Your task to perform on an android device: turn off smart reply in the gmail app Image 0: 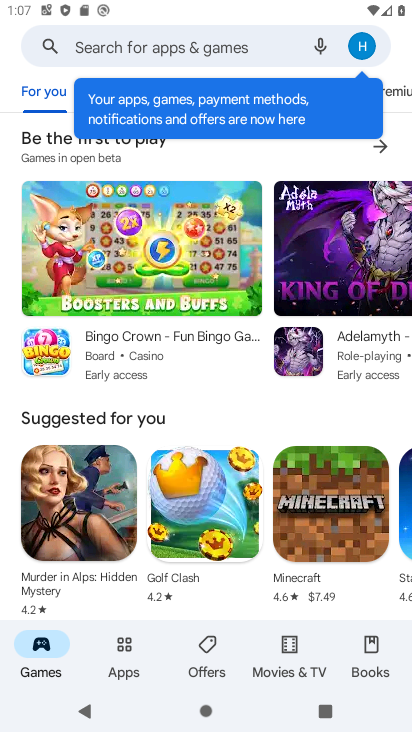
Step 0: press home button
Your task to perform on an android device: turn off smart reply in the gmail app Image 1: 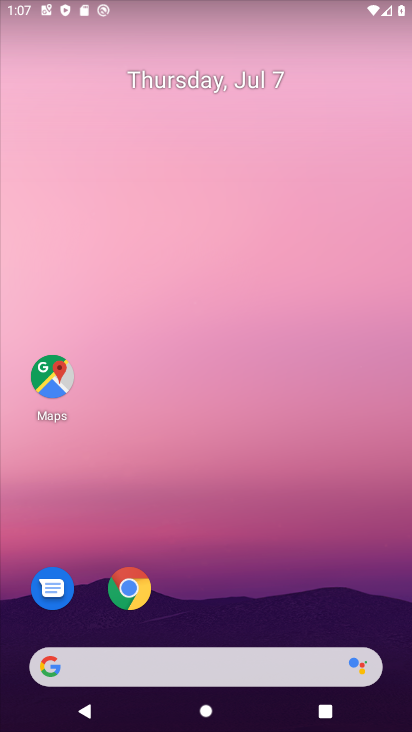
Step 1: drag from (204, 574) to (209, 207)
Your task to perform on an android device: turn off smart reply in the gmail app Image 2: 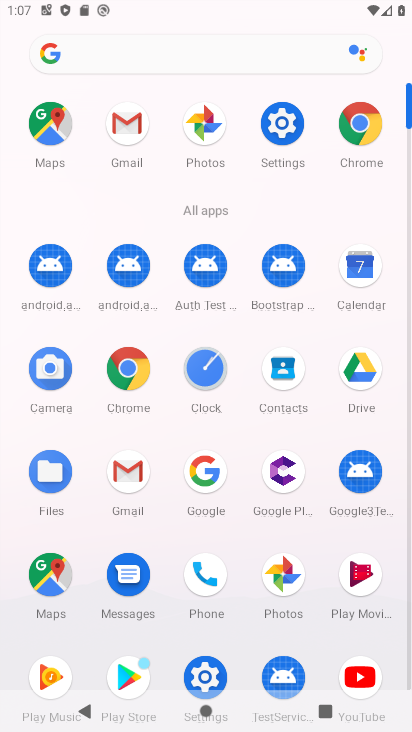
Step 2: click (137, 125)
Your task to perform on an android device: turn off smart reply in the gmail app Image 3: 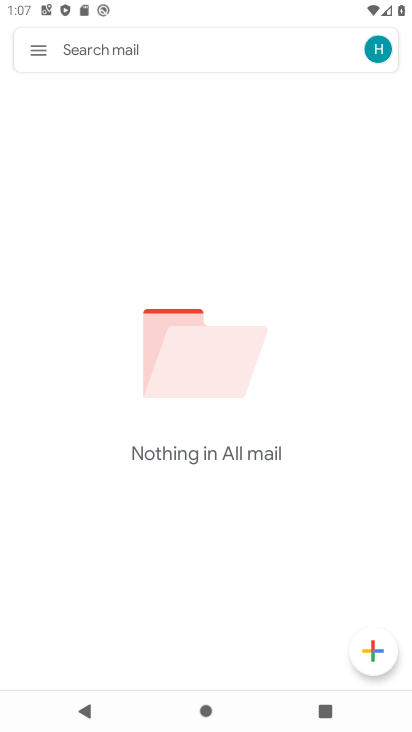
Step 3: click (29, 54)
Your task to perform on an android device: turn off smart reply in the gmail app Image 4: 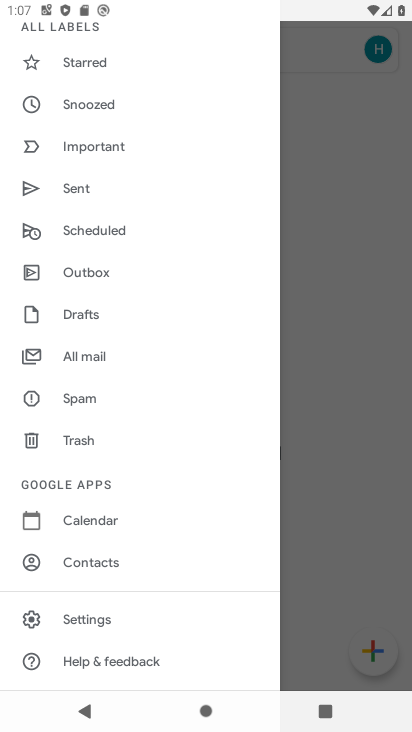
Step 4: click (77, 612)
Your task to perform on an android device: turn off smart reply in the gmail app Image 5: 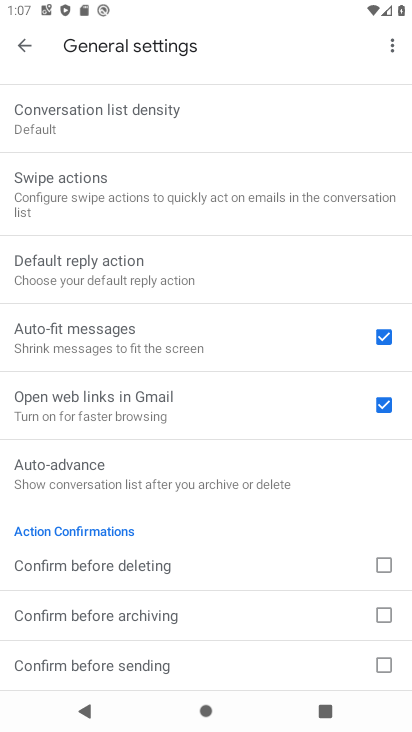
Step 5: drag from (183, 538) to (218, 460)
Your task to perform on an android device: turn off smart reply in the gmail app Image 6: 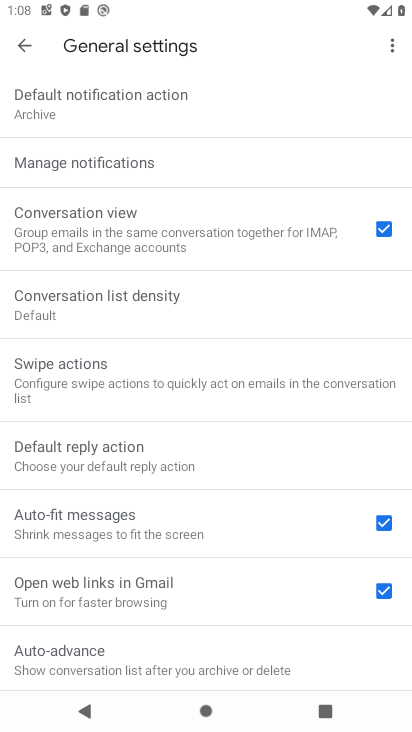
Step 6: drag from (96, 284) to (109, 612)
Your task to perform on an android device: turn off smart reply in the gmail app Image 7: 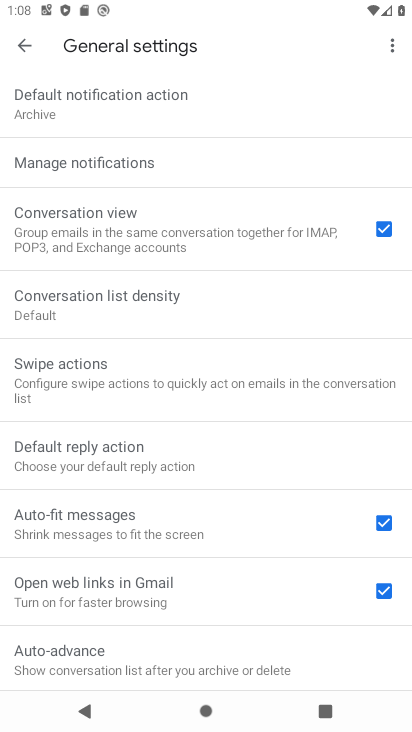
Step 7: click (12, 30)
Your task to perform on an android device: turn off smart reply in the gmail app Image 8: 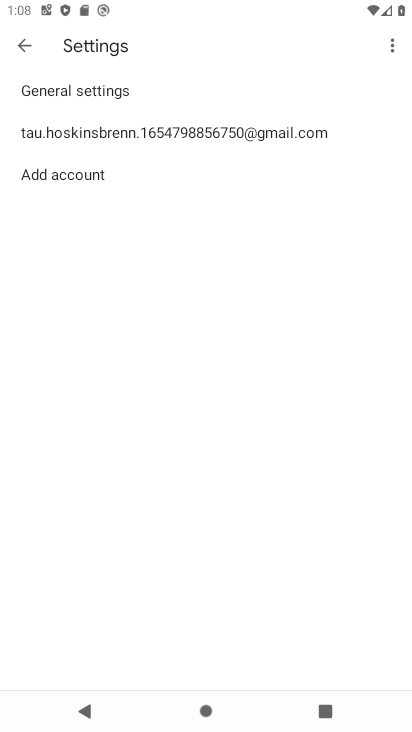
Step 8: click (103, 131)
Your task to perform on an android device: turn off smart reply in the gmail app Image 9: 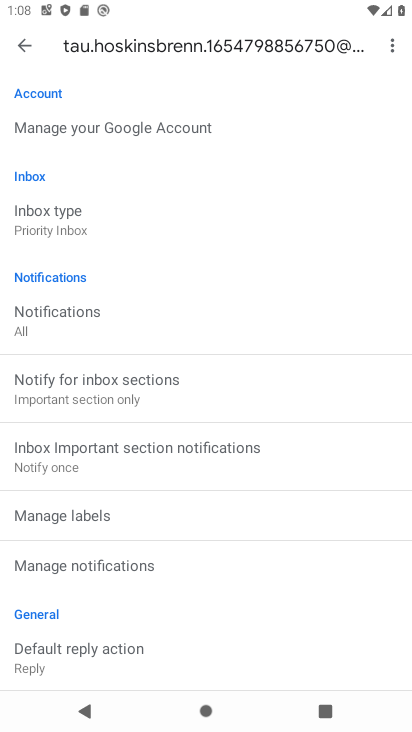
Step 9: drag from (115, 599) to (186, 246)
Your task to perform on an android device: turn off smart reply in the gmail app Image 10: 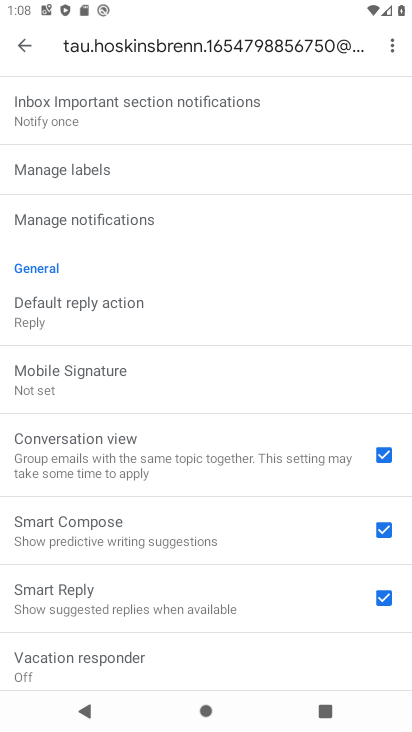
Step 10: click (374, 599)
Your task to perform on an android device: turn off smart reply in the gmail app Image 11: 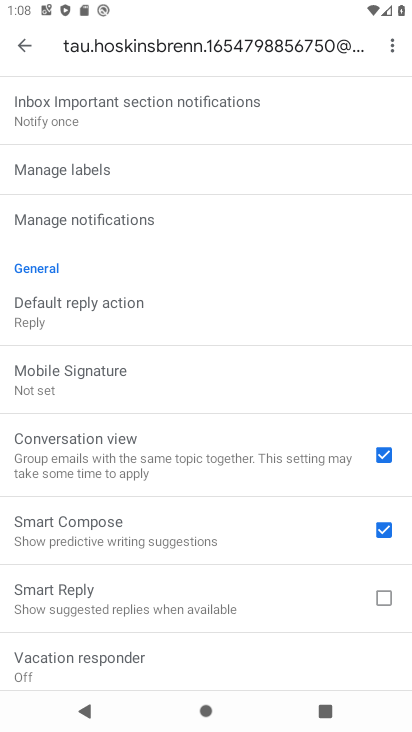
Step 11: task complete